Your task to perform on an android device: toggle location history Image 0: 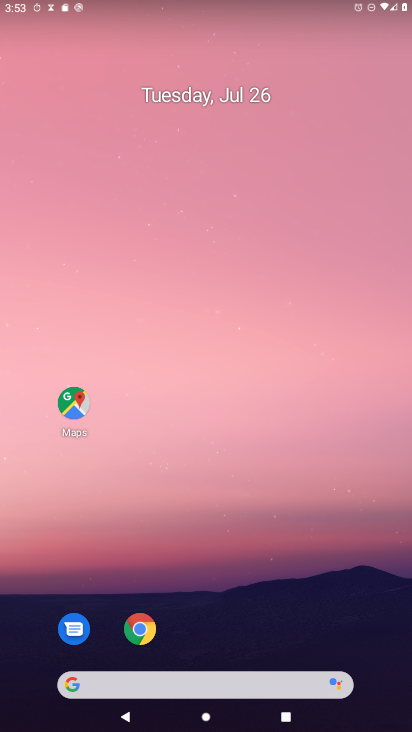
Step 0: drag from (233, 678) to (372, 1)
Your task to perform on an android device: toggle location history Image 1: 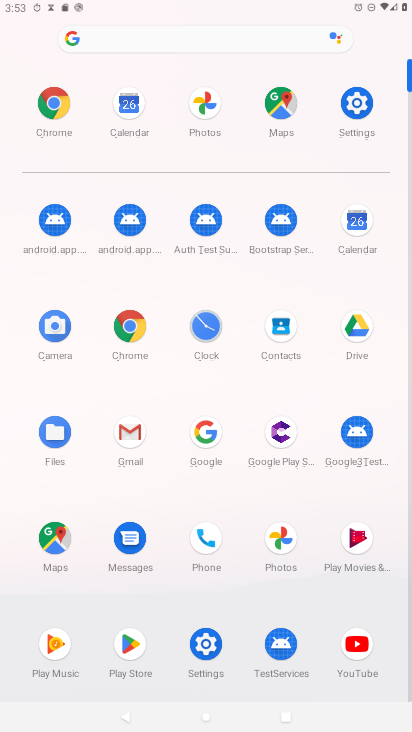
Step 1: click (354, 96)
Your task to perform on an android device: toggle location history Image 2: 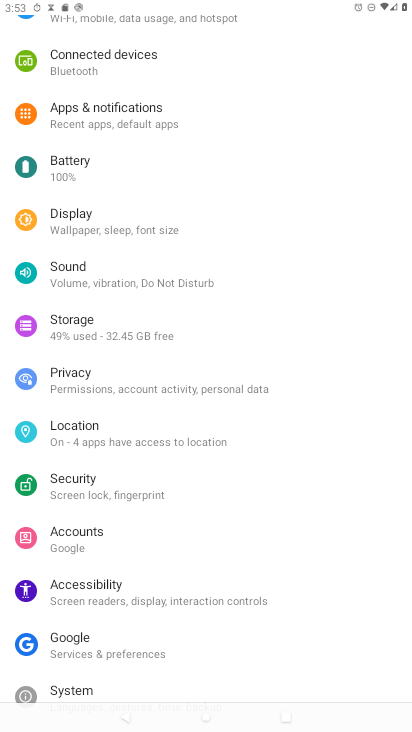
Step 2: click (73, 427)
Your task to perform on an android device: toggle location history Image 3: 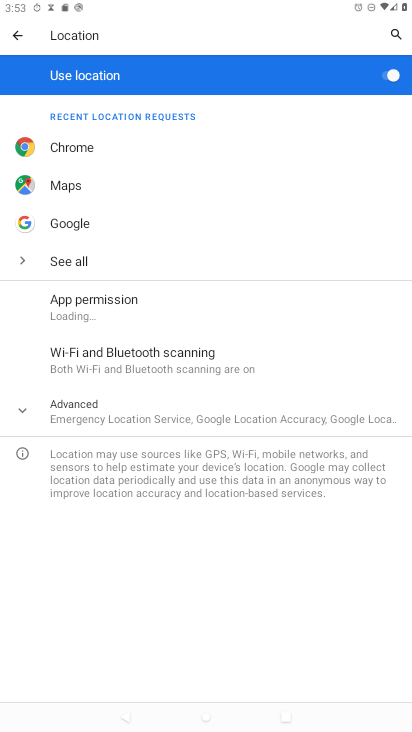
Step 3: click (185, 409)
Your task to perform on an android device: toggle location history Image 4: 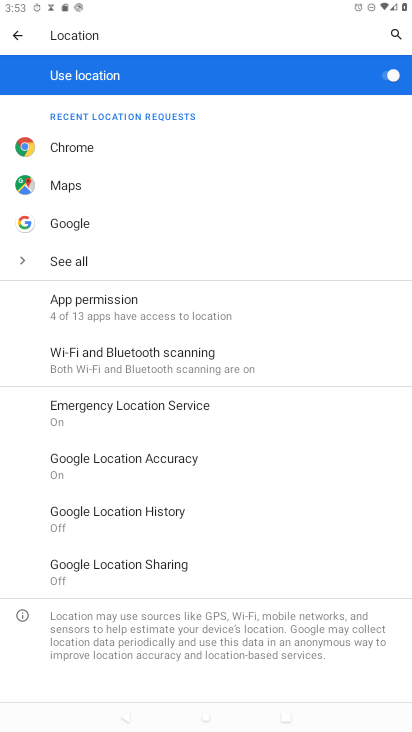
Step 4: click (170, 512)
Your task to perform on an android device: toggle location history Image 5: 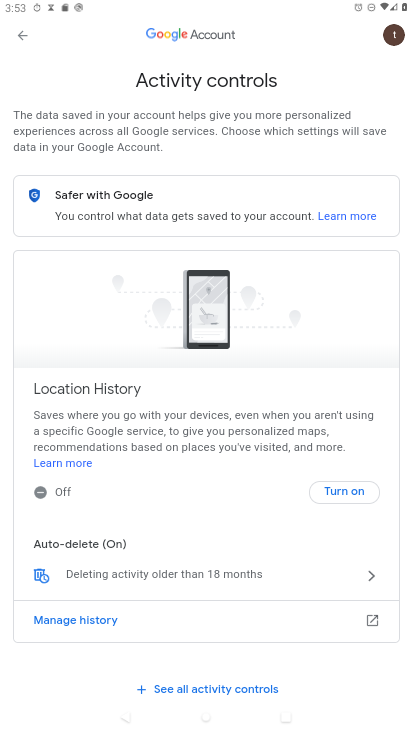
Step 5: click (339, 491)
Your task to perform on an android device: toggle location history Image 6: 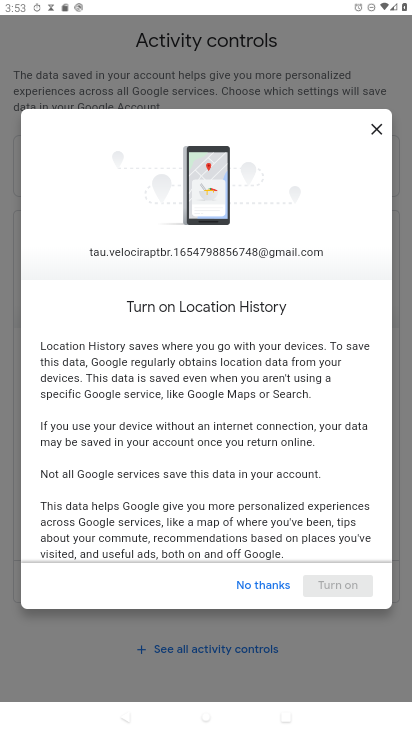
Step 6: drag from (298, 516) to (285, 118)
Your task to perform on an android device: toggle location history Image 7: 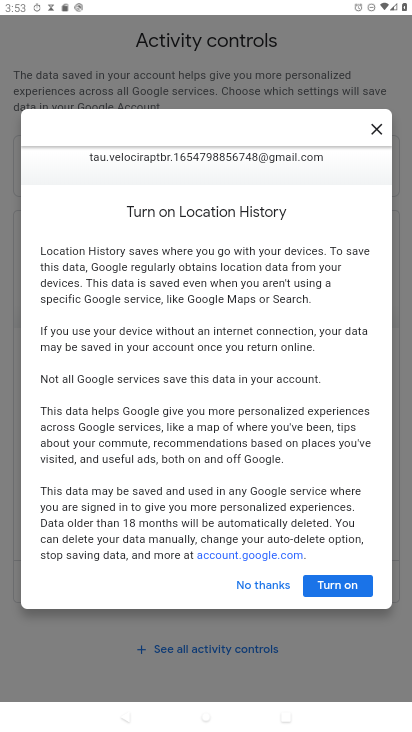
Step 7: click (366, 594)
Your task to perform on an android device: toggle location history Image 8: 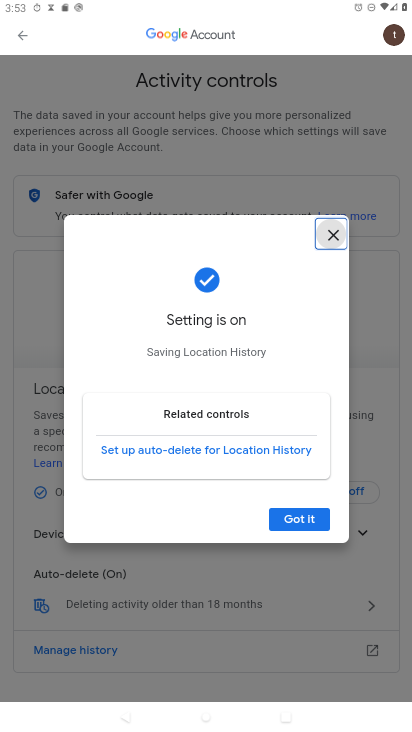
Step 8: task complete